Your task to perform on an android device: install app "AliExpress" Image 0: 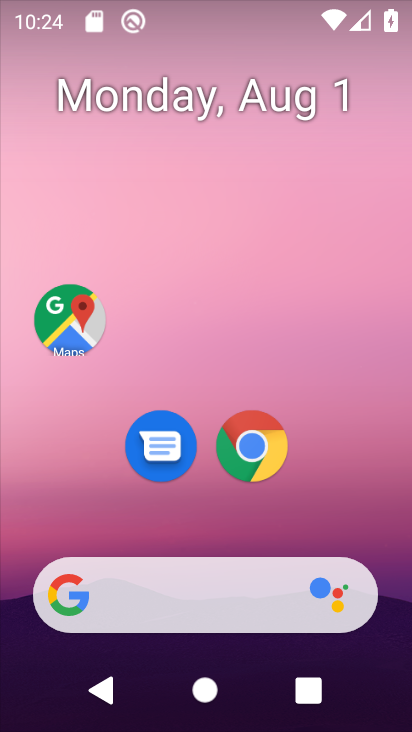
Step 0: drag from (198, 498) to (204, 135)
Your task to perform on an android device: install app "AliExpress" Image 1: 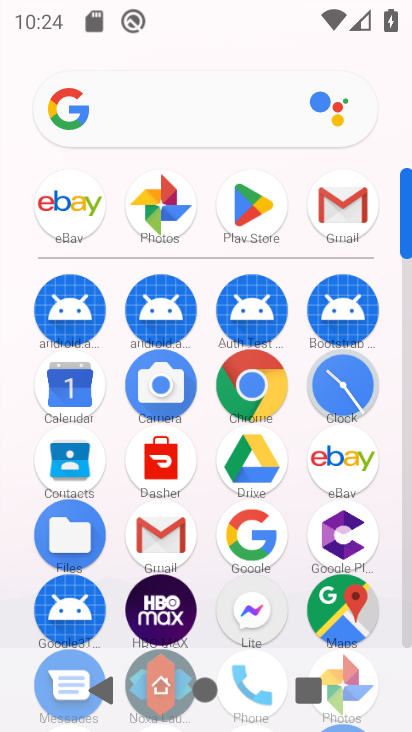
Step 1: click (233, 212)
Your task to perform on an android device: install app "AliExpress" Image 2: 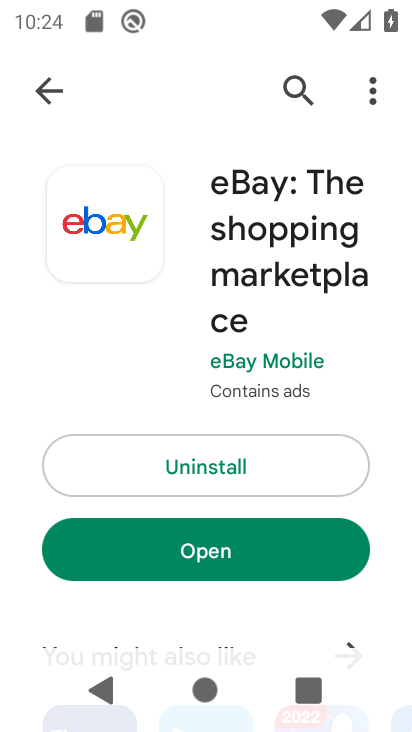
Step 2: click (288, 78)
Your task to perform on an android device: install app "AliExpress" Image 3: 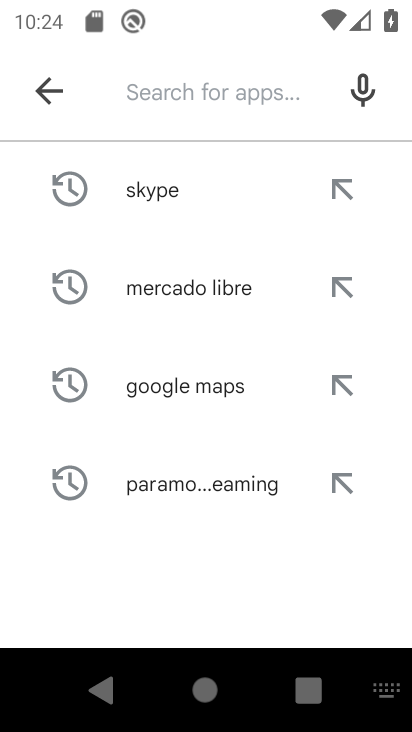
Step 3: type "AliExpress"
Your task to perform on an android device: install app "AliExpress" Image 4: 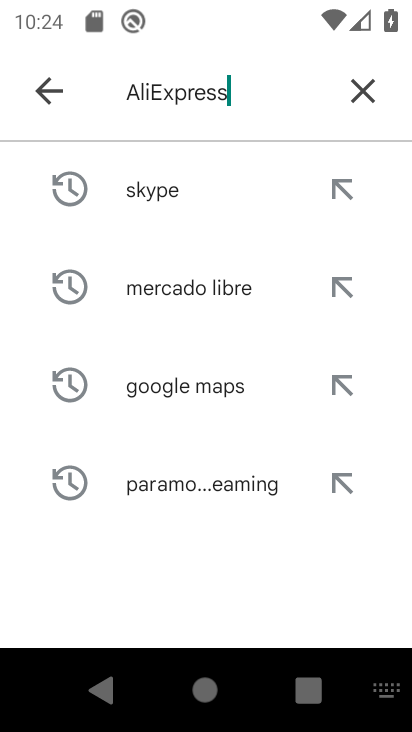
Step 4: type ""
Your task to perform on an android device: install app "AliExpress" Image 5: 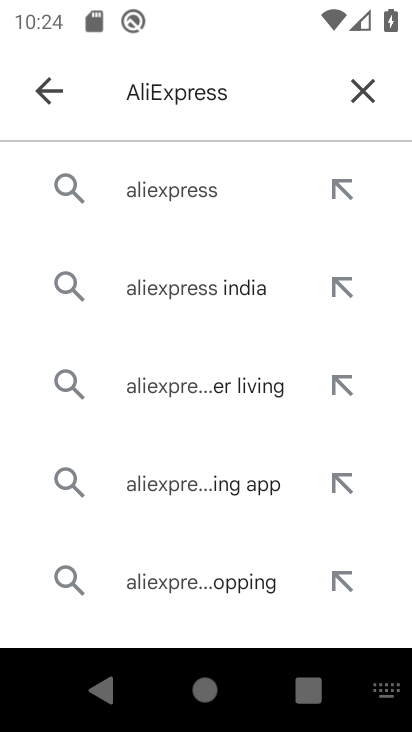
Step 5: click (140, 187)
Your task to perform on an android device: install app "AliExpress" Image 6: 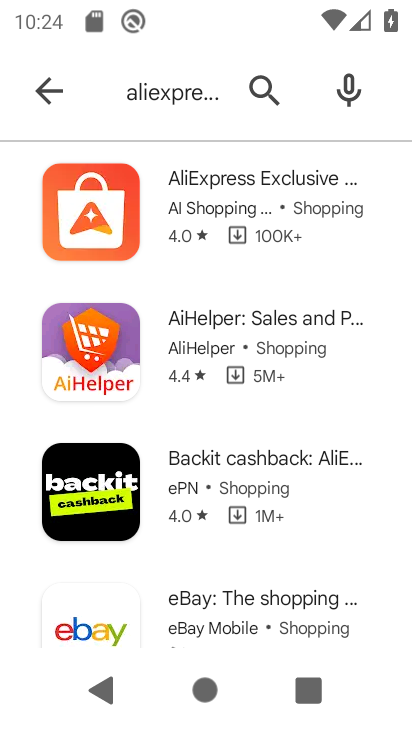
Step 6: click (300, 205)
Your task to perform on an android device: install app "AliExpress" Image 7: 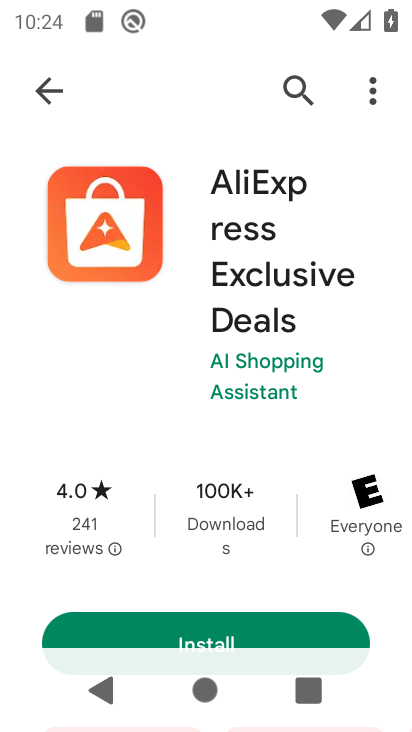
Step 7: drag from (239, 542) to (294, 200)
Your task to perform on an android device: install app "AliExpress" Image 8: 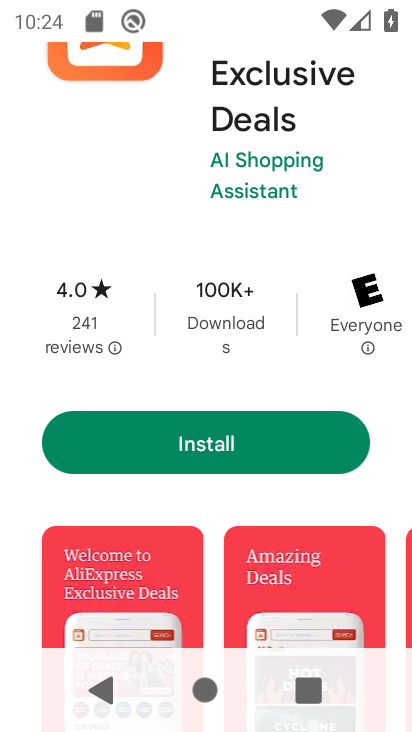
Step 8: click (258, 426)
Your task to perform on an android device: install app "AliExpress" Image 9: 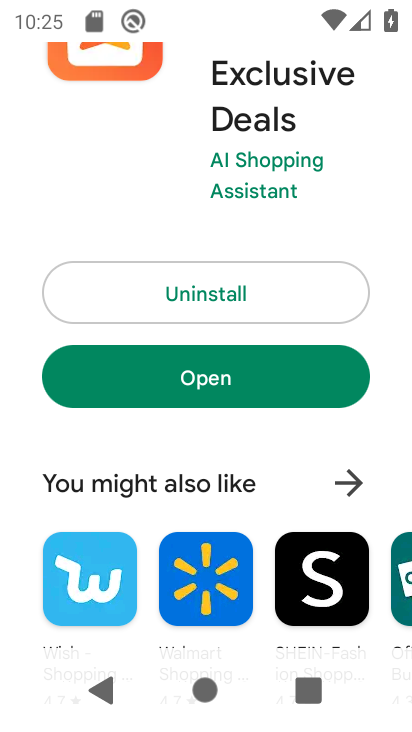
Step 9: task complete